Your task to perform on an android device: Open accessibility settings Image 0: 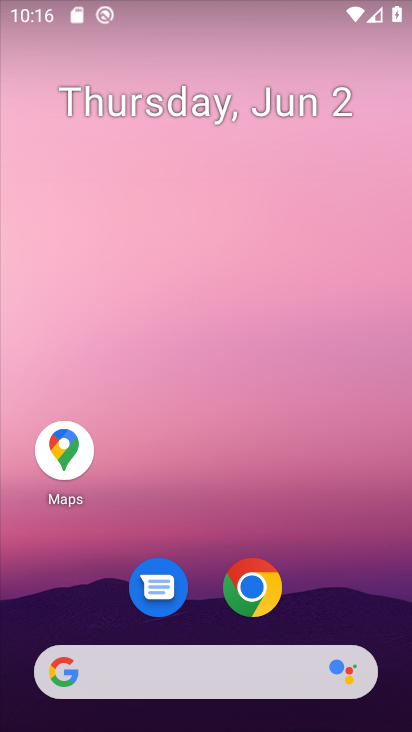
Step 0: drag from (345, 586) to (314, 189)
Your task to perform on an android device: Open accessibility settings Image 1: 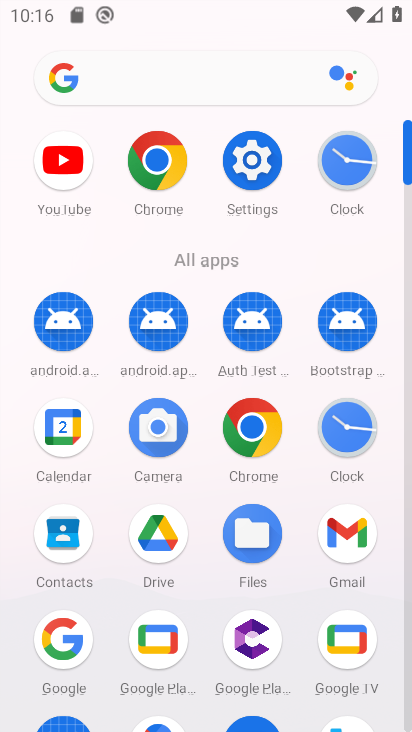
Step 1: click (249, 164)
Your task to perform on an android device: Open accessibility settings Image 2: 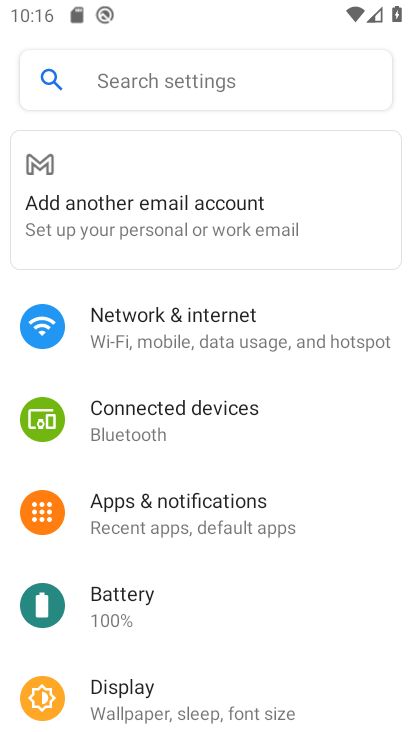
Step 2: drag from (245, 574) to (278, 185)
Your task to perform on an android device: Open accessibility settings Image 3: 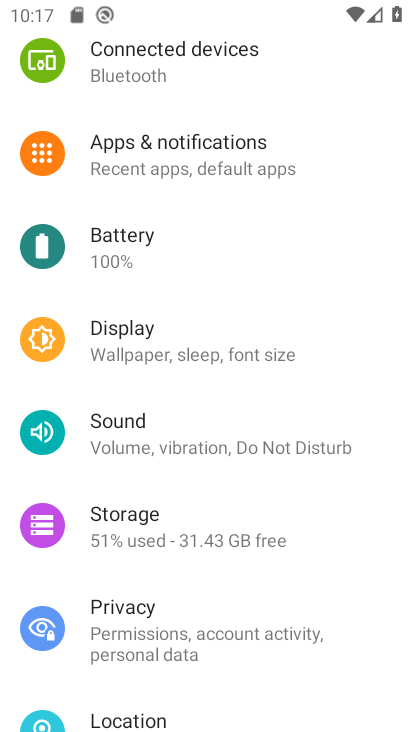
Step 3: drag from (287, 590) to (336, 209)
Your task to perform on an android device: Open accessibility settings Image 4: 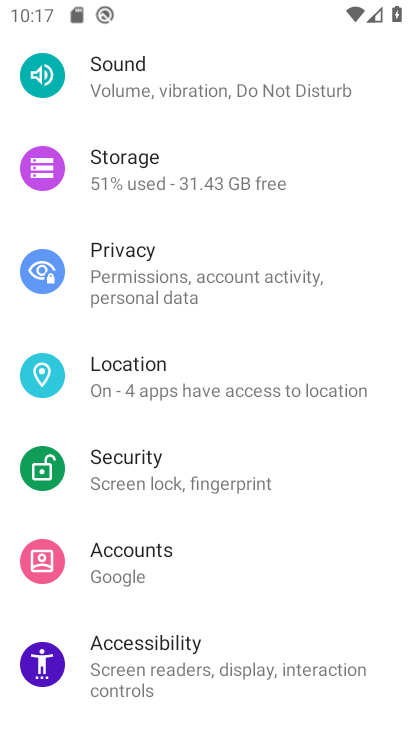
Step 4: click (223, 652)
Your task to perform on an android device: Open accessibility settings Image 5: 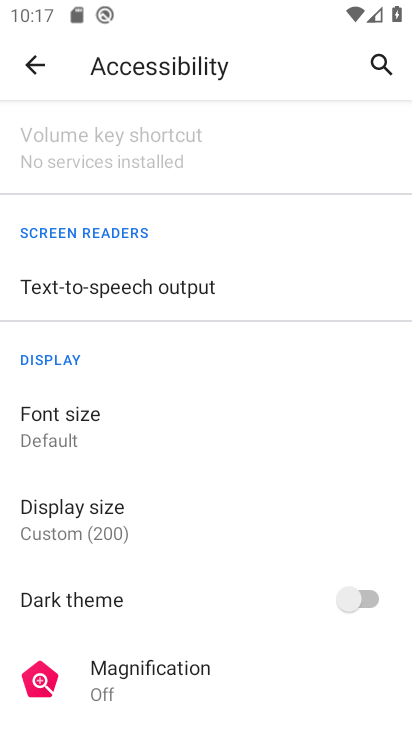
Step 5: task complete